Your task to perform on an android device: Go to internet settings Image 0: 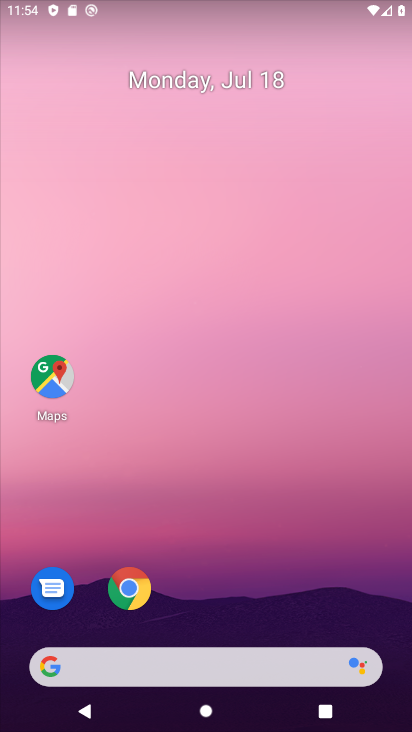
Step 0: drag from (199, 543) to (186, 239)
Your task to perform on an android device: Go to internet settings Image 1: 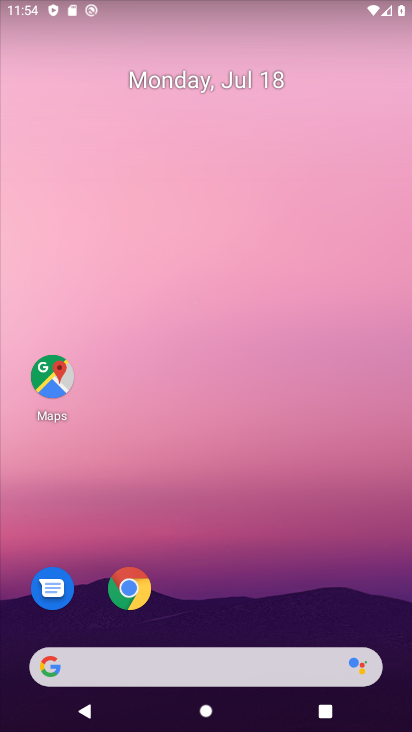
Step 1: drag from (242, 496) to (272, 5)
Your task to perform on an android device: Go to internet settings Image 2: 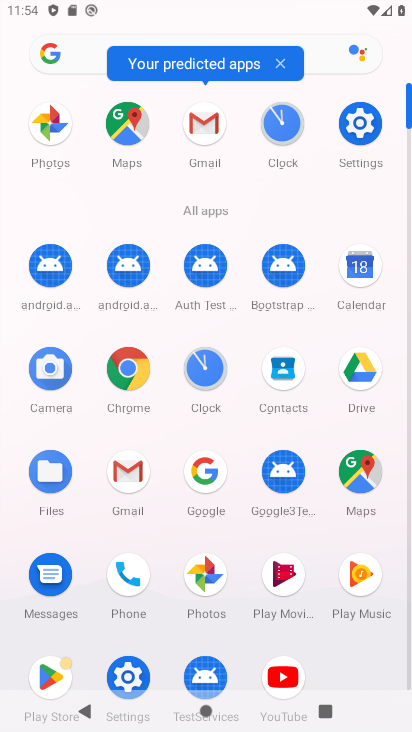
Step 2: click (362, 121)
Your task to perform on an android device: Go to internet settings Image 3: 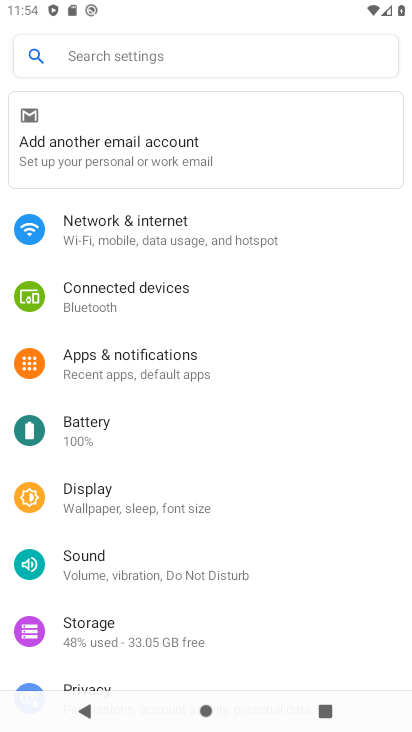
Step 3: click (128, 222)
Your task to perform on an android device: Go to internet settings Image 4: 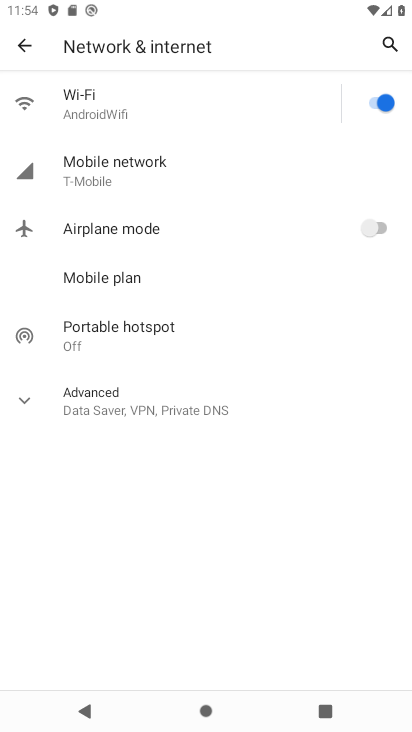
Step 4: click (124, 158)
Your task to perform on an android device: Go to internet settings Image 5: 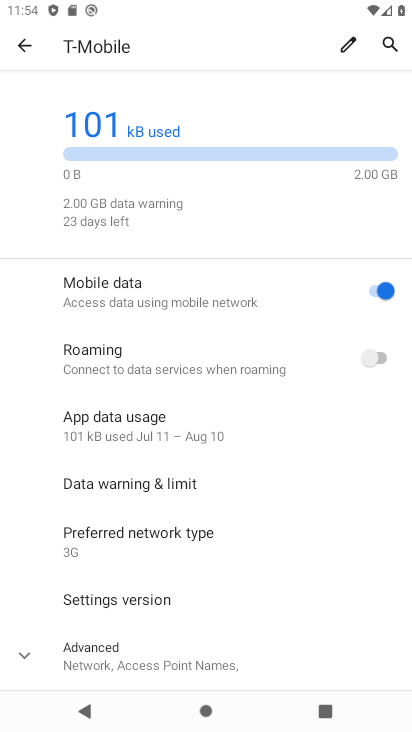
Step 5: task complete